Your task to perform on an android device: read, delete, or share a saved page in the chrome app Image 0: 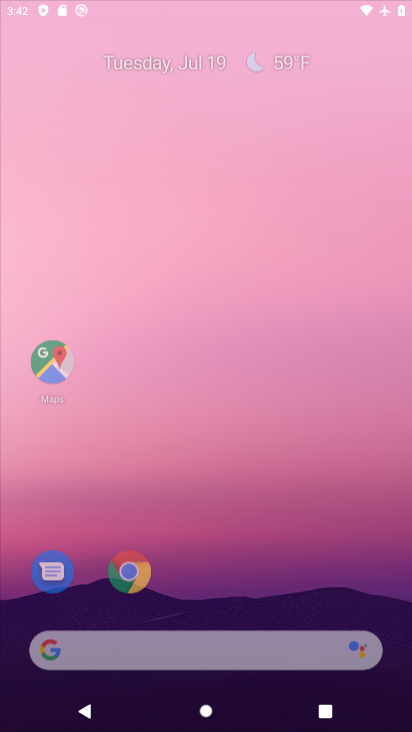
Step 0: press home button
Your task to perform on an android device: read, delete, or share a saved page in the chrome app Image 1: 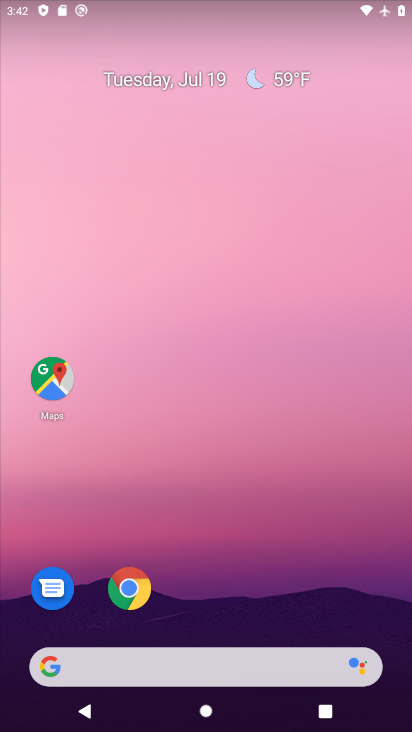
Step 1: drag from (280, 621) to (163, 78)
Your task to perform on an android device: read, delete, or share a saved page in the chrome app Image 2: 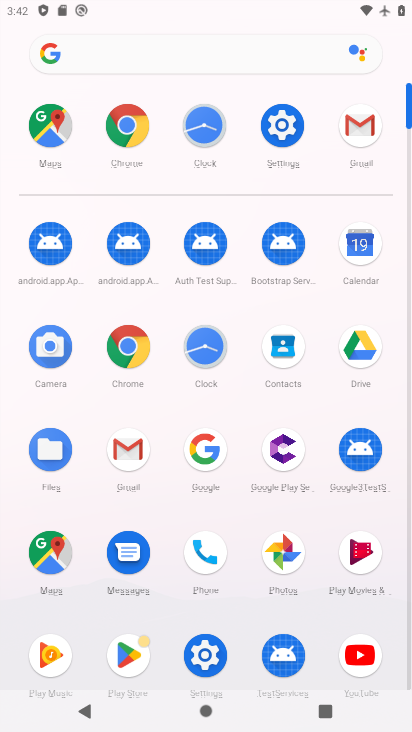
Step 2: click (123, 137)
Your task to perform on an android device: read, delete, or share a saved page in the chrome app Image 3: 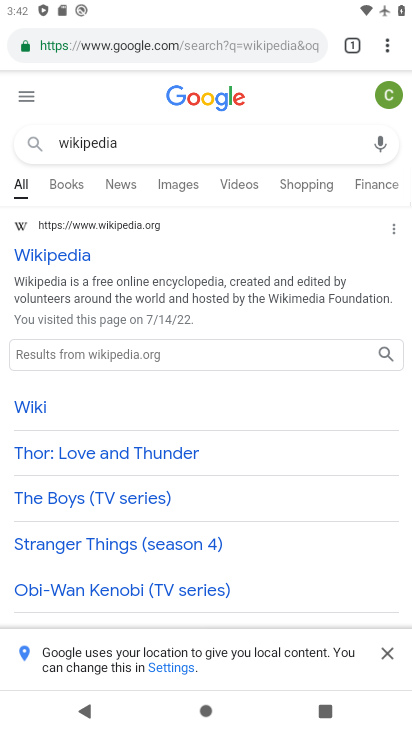
Step 3: drag from (386, 57) to (223, 292)
Your task to perform on an android device: read, delete, or share a saved page in the chrome app Image 4: 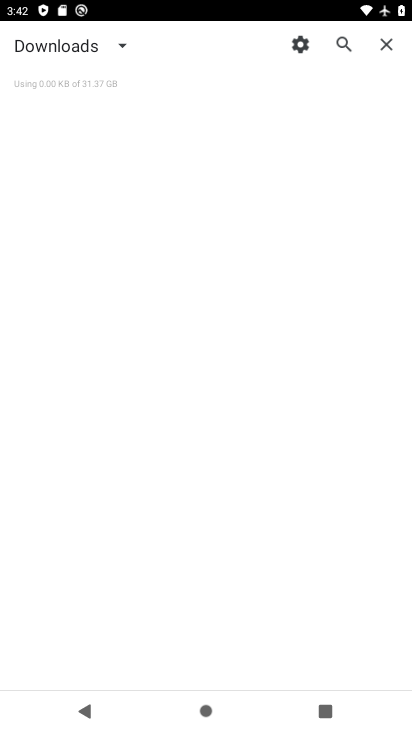
Step 4: click (124, 46)
Your task to perform on an android device: read, delete, or share a saved page in the chrome app Image 5: 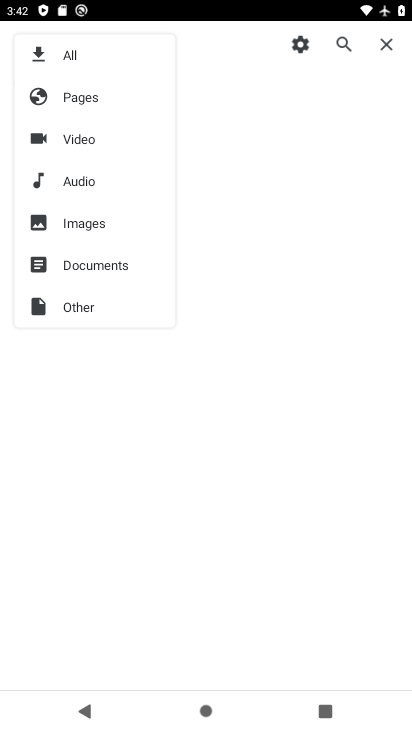
Step 5: click (82, 99)
Your task to perform on an android device: read, delete, or share a saved page in the chrome app Image 6: 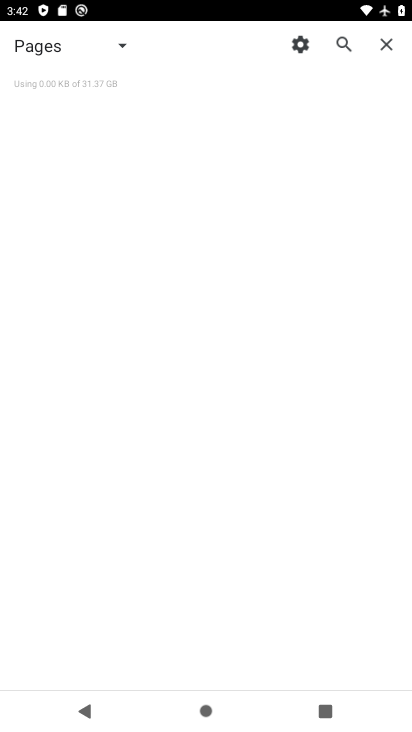
Step 6: task complete